Your task to perform on an android device: Open the Play Movies app and select the watchlist tab. Image 0: 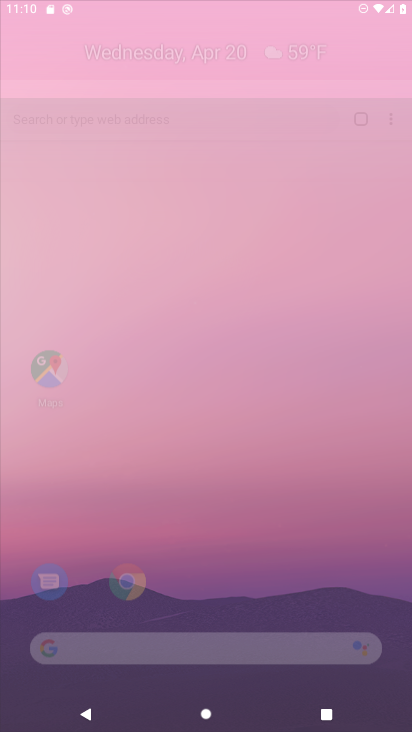
Step 0: click (263, 123)
Your task to perform on an android device: Open the Play Movies app and select the watchlist tab. Image 1: 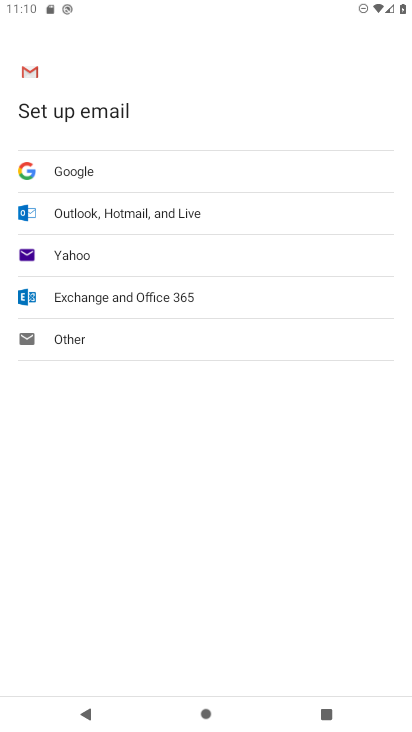
Step 1: drag from (249, 657) to (405, 552)
Your task to perform on an android device: Open the Play Movies app and select the watchlist tab. Image 2: 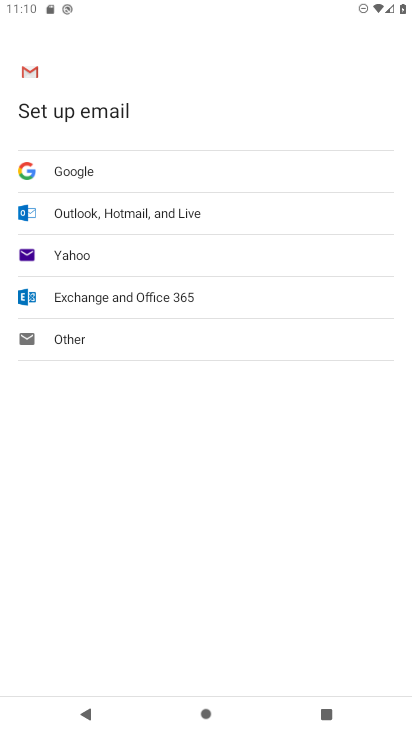
Step 2: press home button
Your task to perform on an android device: Open the Play Movies app and select the watchlist tab. Image 3: 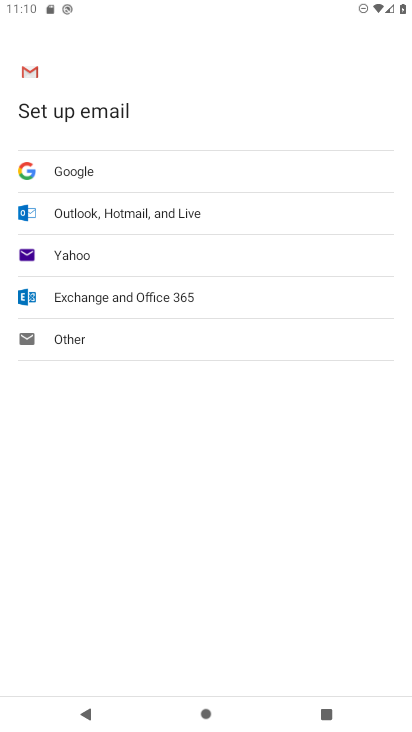
Step 3: click (393, 434)
Your task to perform on an android device: Open the Play Movies app and select the watchlist tab. Image 4: 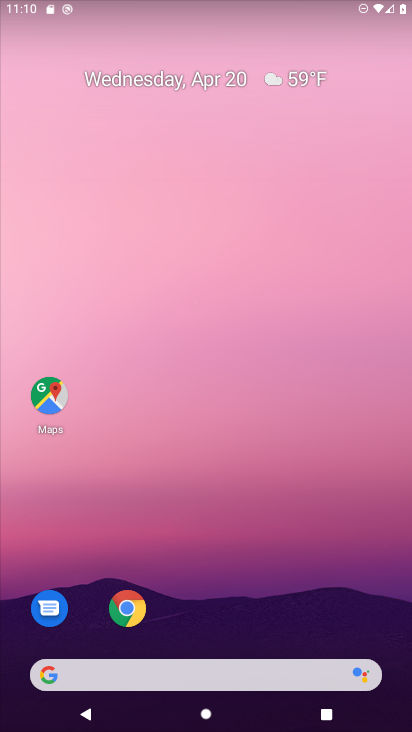
Step 4: drag from (261, 595) to (253, 153)
Your task to perform on an android device: Open the Play Movies app and select the watchlist tab. Image 5: 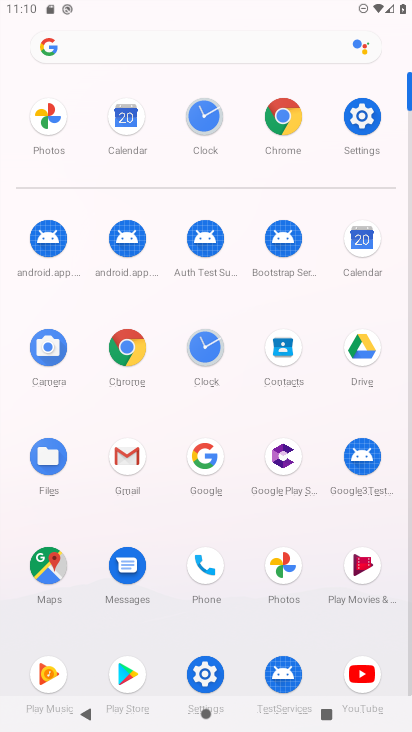
Step 5: drag from (322, 597) to (311, 340)
Your task to perform on an android device: Open the Play Movies app and select the watchlist tab. Image 6: 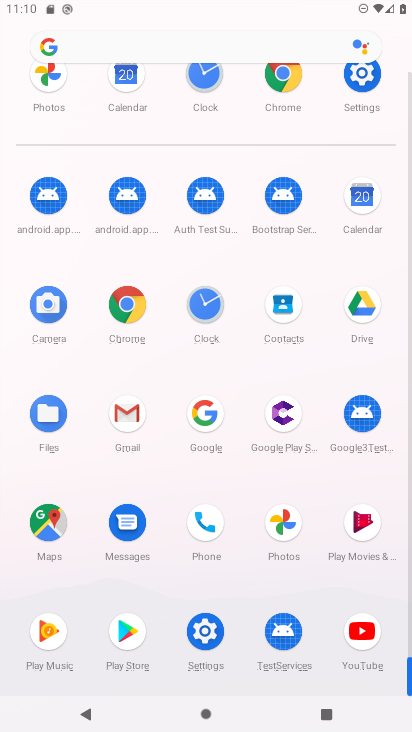
Step 6: click (354, 517)
Your task to perform on an android device: Open the Play Movies app and select the watchlist tab. Image 7: 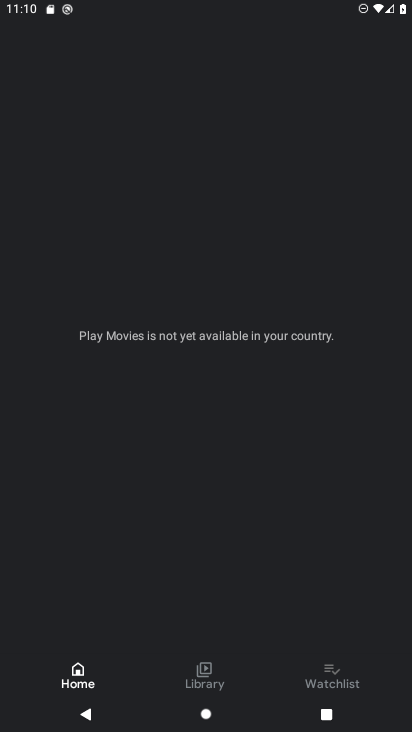
Step 7: click (319, 662)
Your task to perform on an android device: Open the Play Movies app and select the watchlist tab. Image 8: 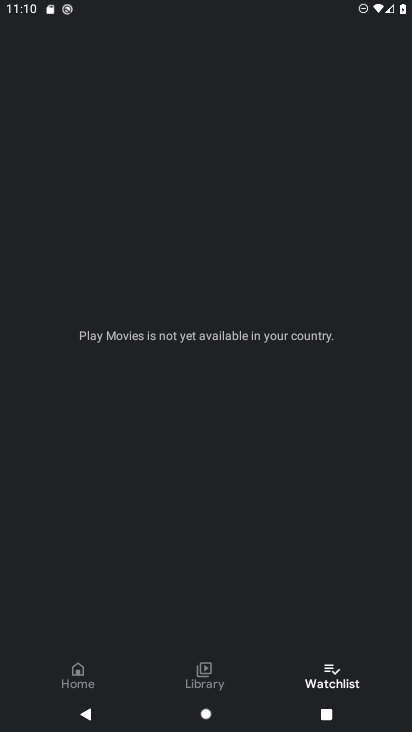
Step 8: task complete